Your task to perform on an android device: check data usage Image 0: 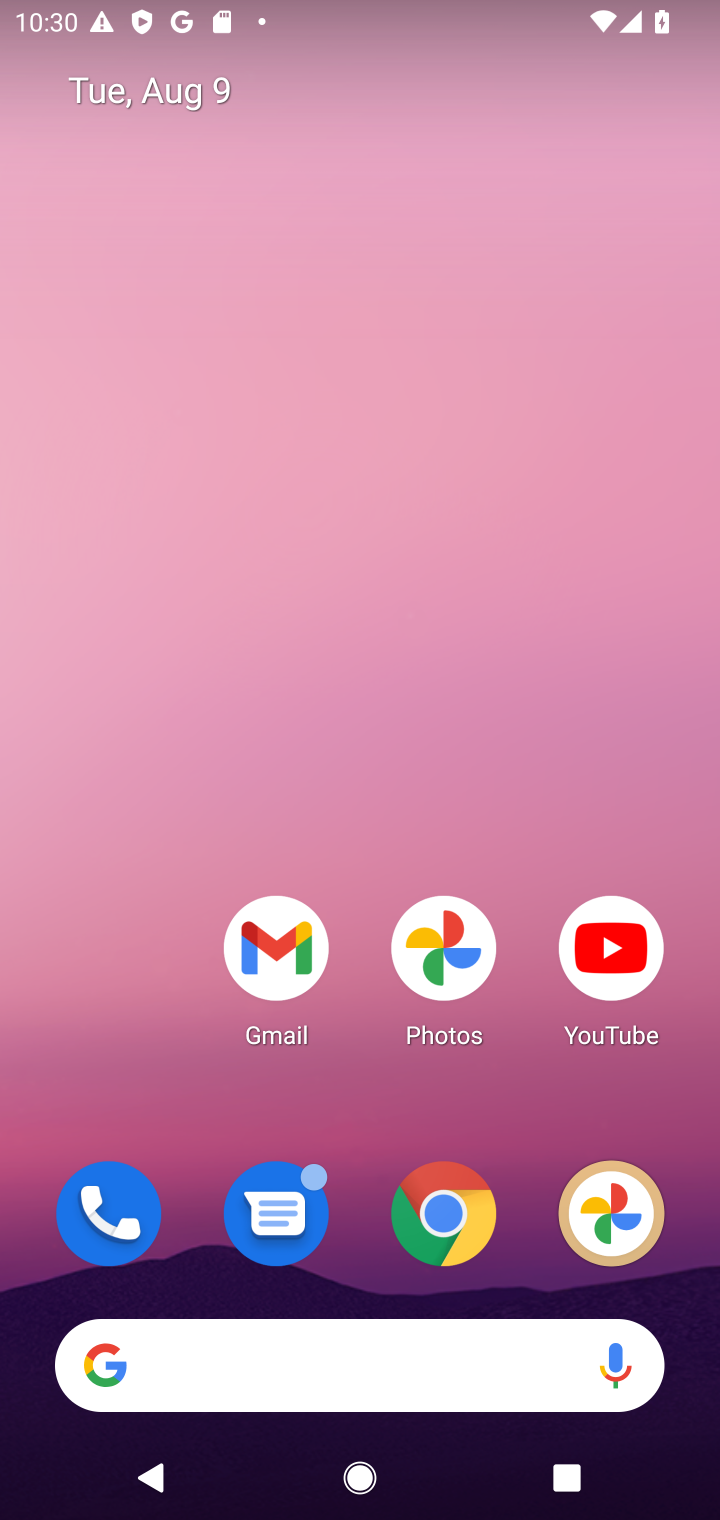
Step 0: drag from (329, 1338) to (257, 8)
Your task to perform on an android device: check data usage Image 1: 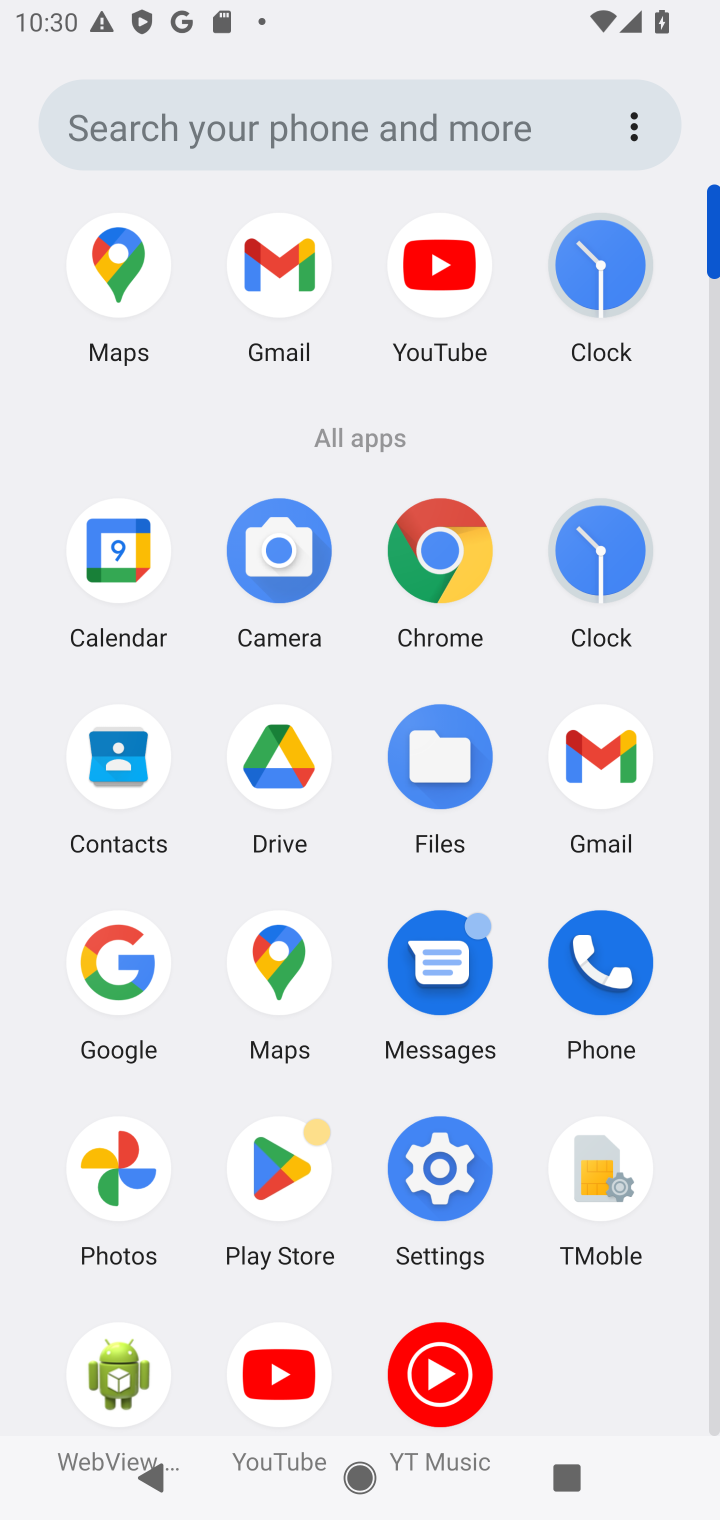
Step 1: click (432, 1151)
Your task to perform on an android device: check data usage Image 2: 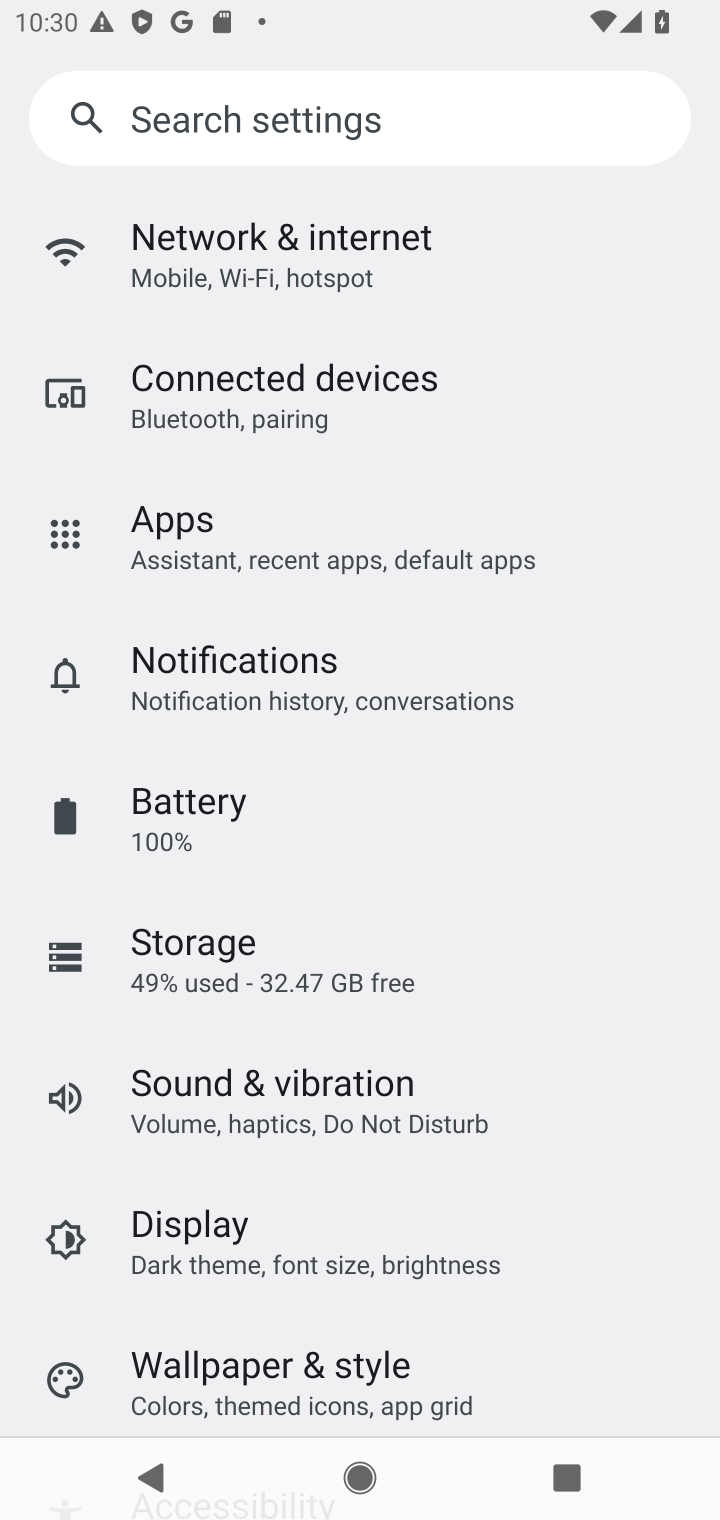
Step 2: click (416, 279)
Your task to perform on an android device: check data usage Image 3: 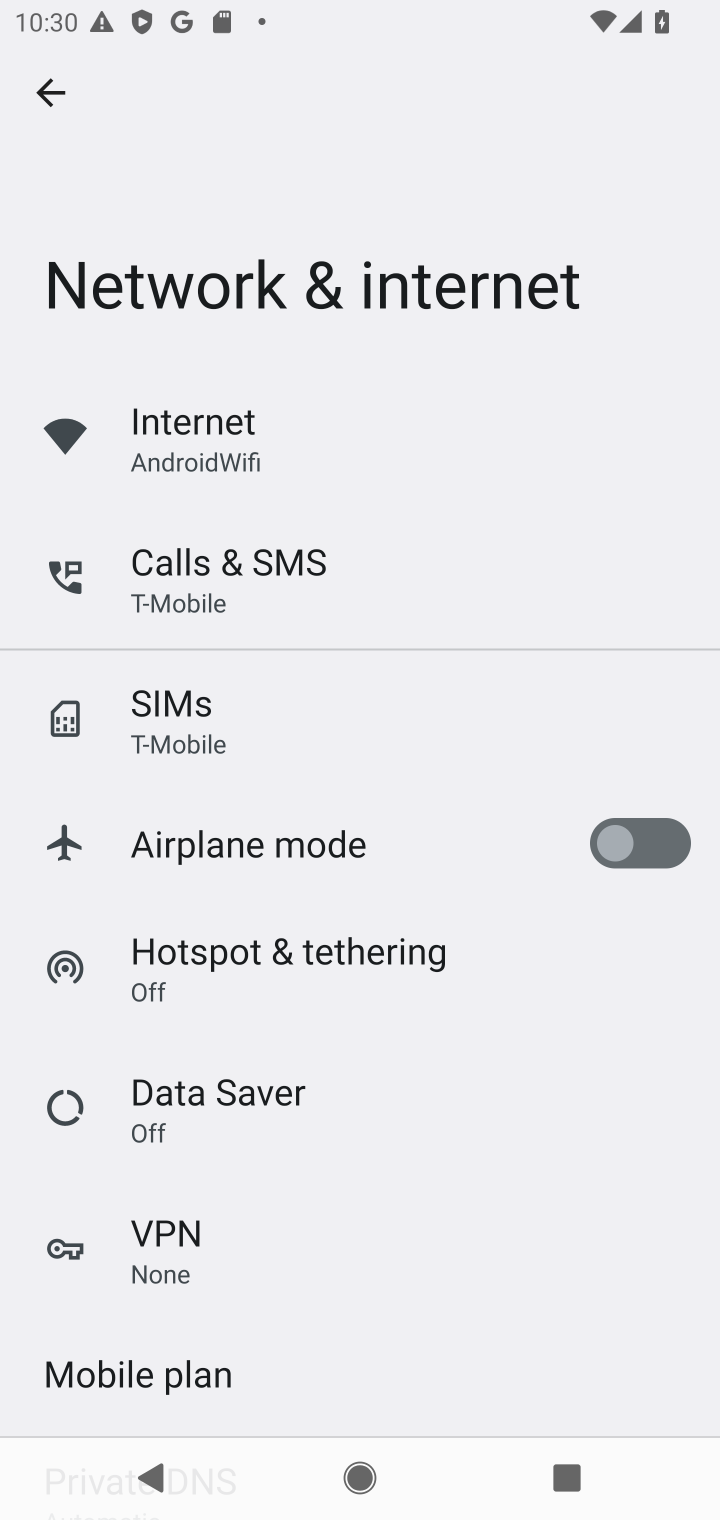
Step 3: click (239, 477)
Your task to perform on an android device: check data usage Image 4: 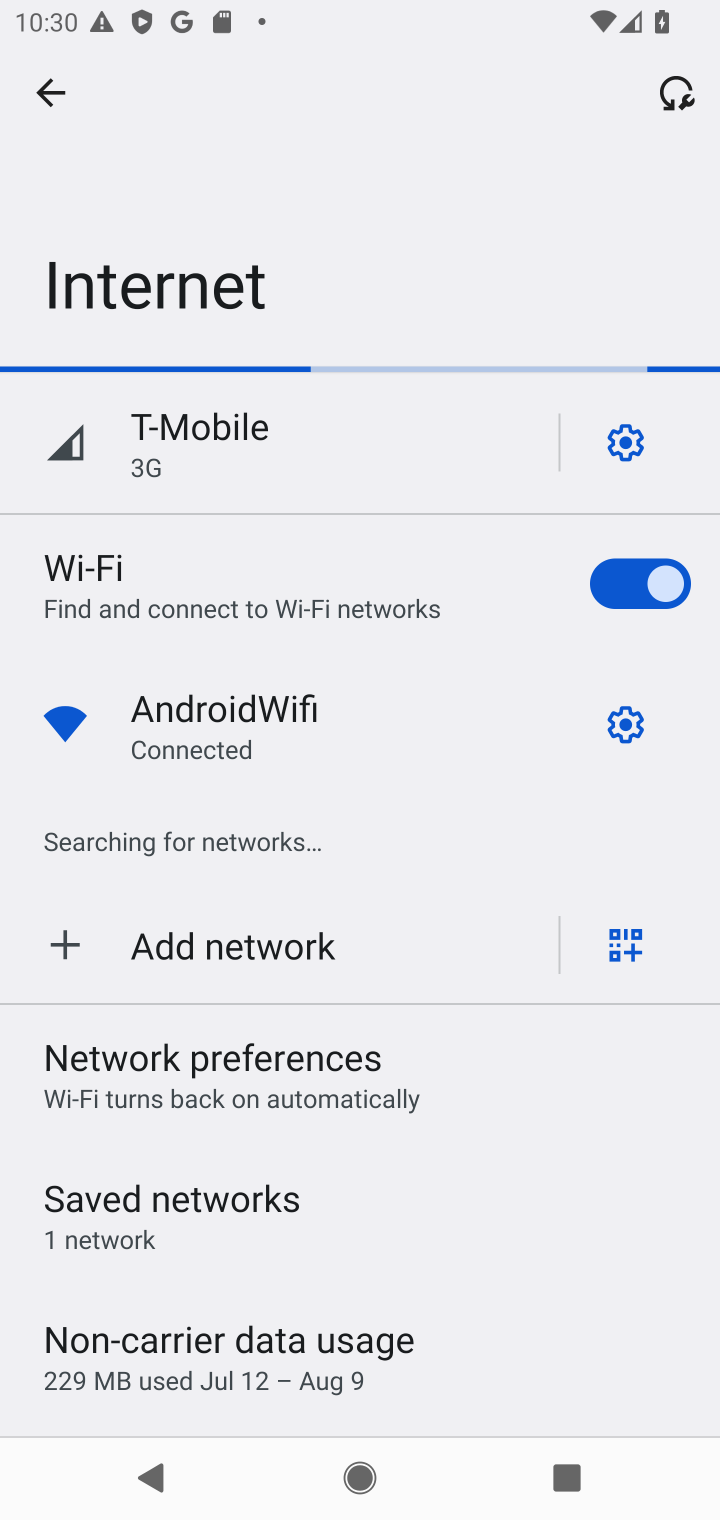
Step 4: task complete